Your task to perform on an android device: turn off location Image 0: 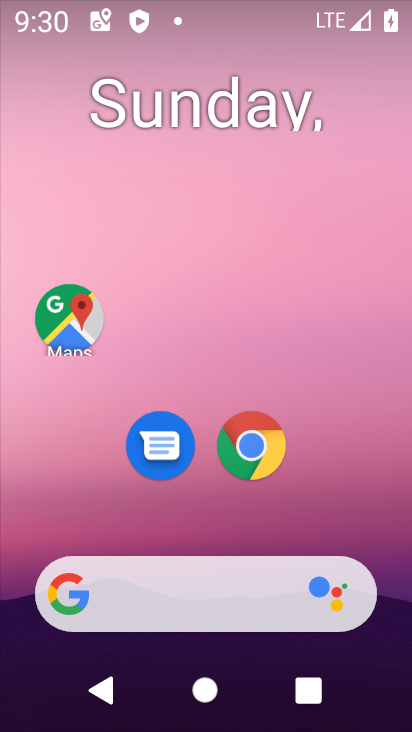
Step 0: drag from (391, 540) to (304, 147)
Your task to perform on an android device: turn off location Image 1: 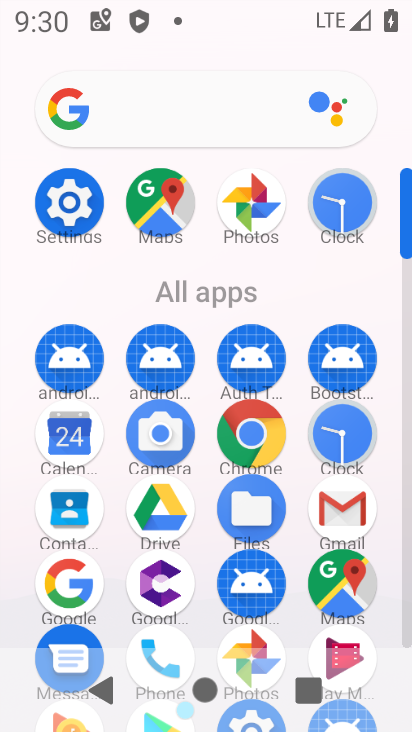
Step 1: click (403, 624)
Your task to perform on an android device: turn off location Image 2: 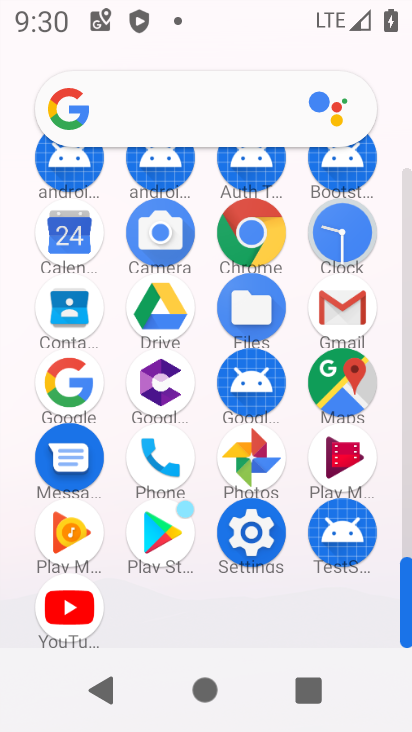
Step 2: click (249, 525)
Your task to perform on an android device: turn off location Image 3: 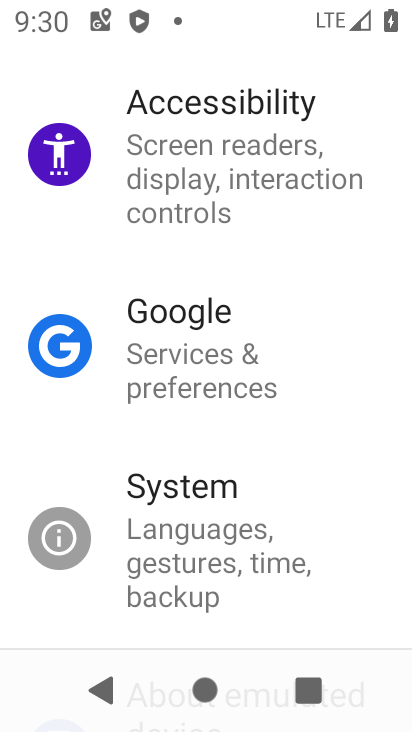
Step 3: drag from (310, 269) to (299, 435)
Your task to perform on an android device: turn off location Image 4: 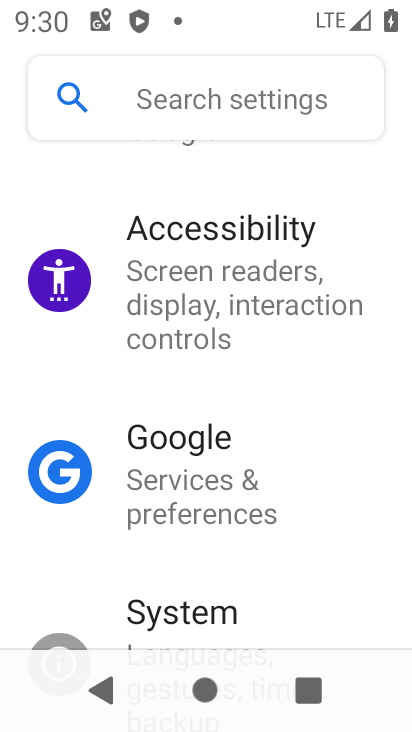
Step 4: drag from (338, 300) to (331, 467)
Your task to perform on an android device: turn off location Image 5: 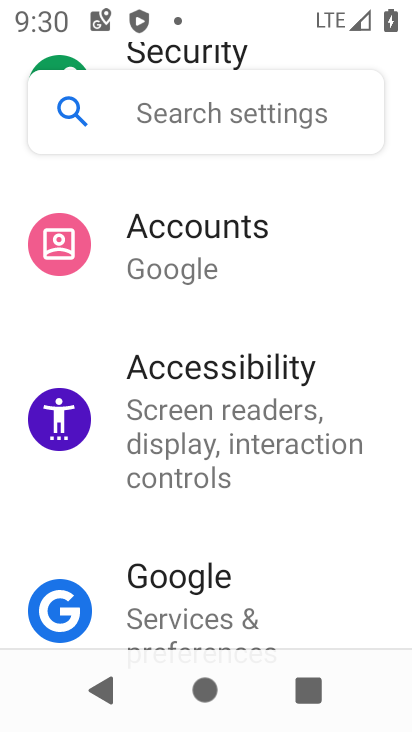
Step 5: drag from (358, 285) to (352, 465)
Your task to perform on an android device: turn off location Image 6: 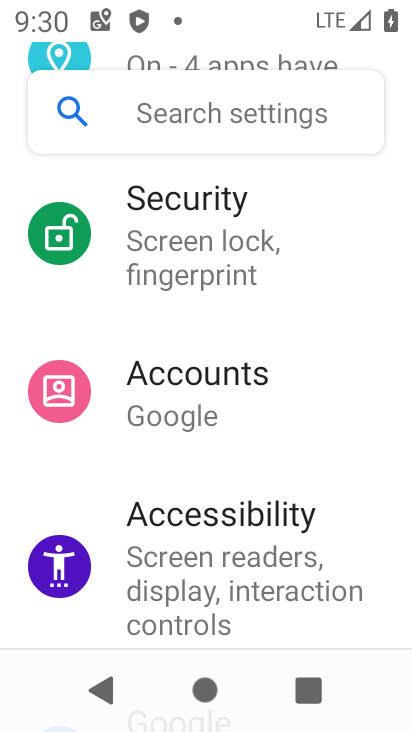
Step 6: drag from (337, 290) to (327, 509)
Your task to perform on an android device: turn off location Image 7: 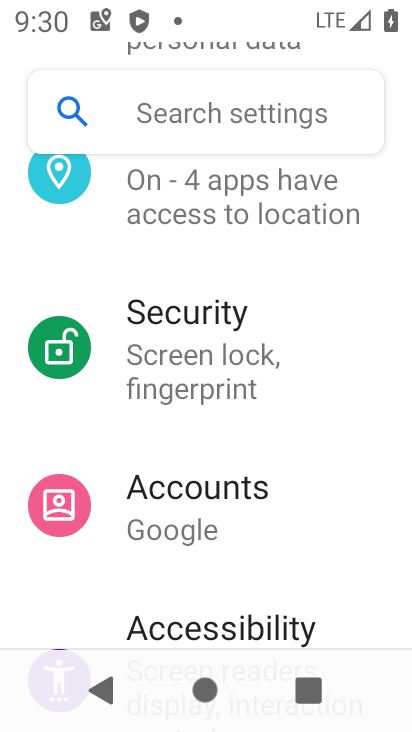
Step 7: drag from (346, 252) to (323, 417)
Your task to perform on an android device: turn off location Image 8: 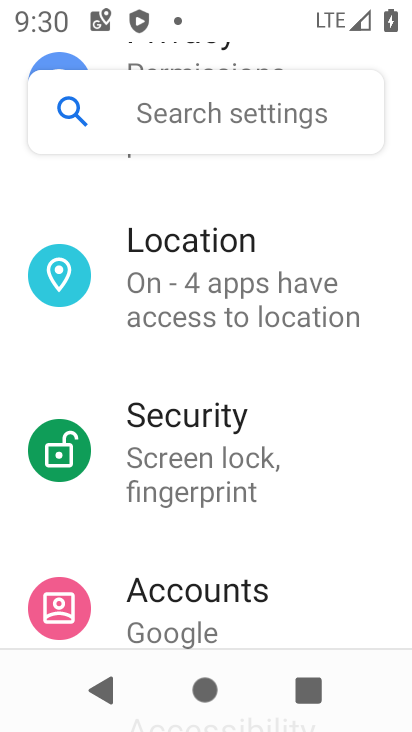
Step 8: click (207, 289)
Your task to perform on an android device: turn off location Image 9: 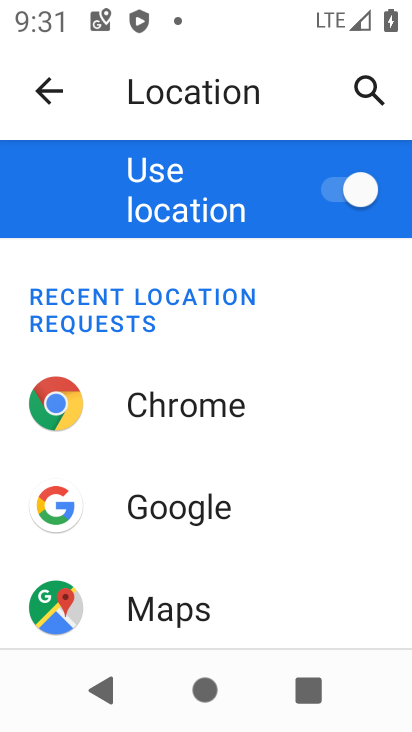
Step 9: click (329, 179)
Your task to perform on an android device: turn off location Image 10: 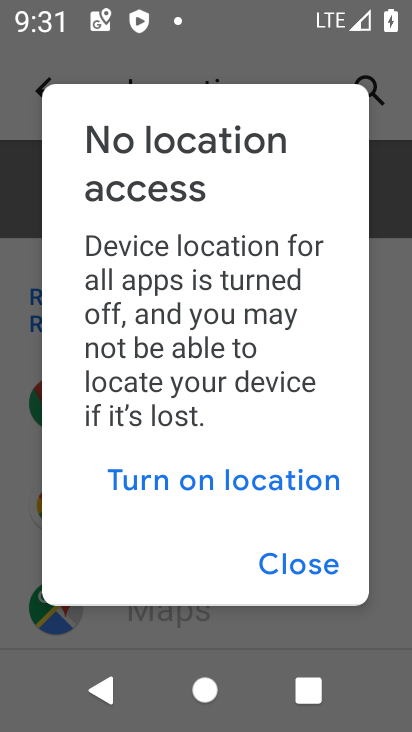
Step 10: task complete